Your task to perform on an android device: Open Chrome and go to settings Image 0: 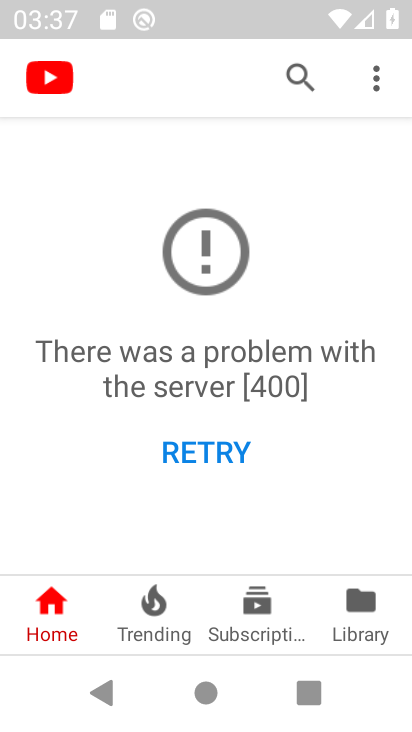
Step 0: press home button
Your task to perform on an android device: Open Chrome and go to settings Image 1: 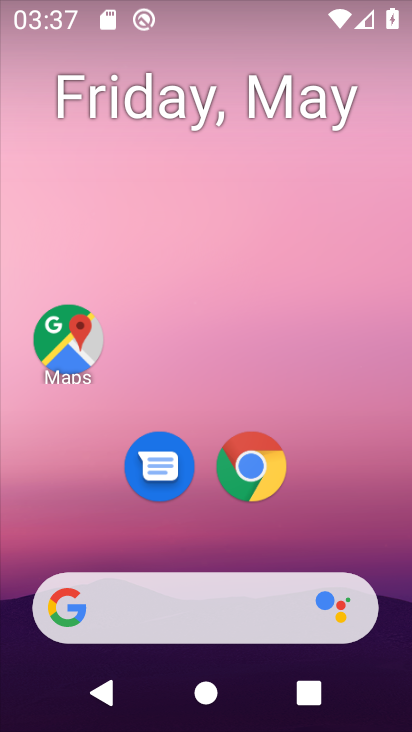
Step 1: click (255, 467)
Your task to perform on an android device: Open Chrome and go to settings Image 2: 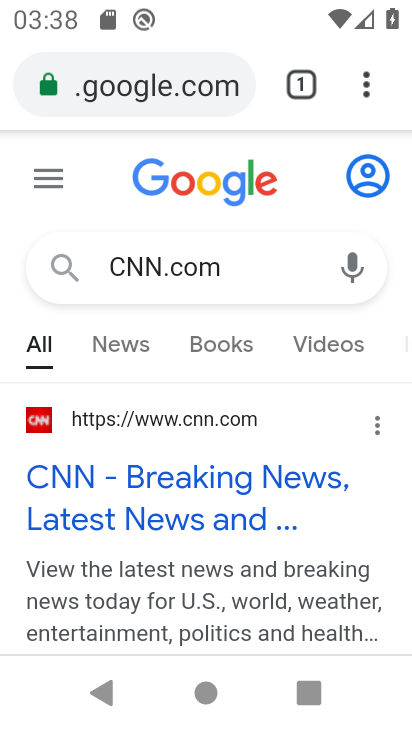
Step 2: click (358, 78)
Your task to perform on an android device: Open Chrome and go to settings Image 3: 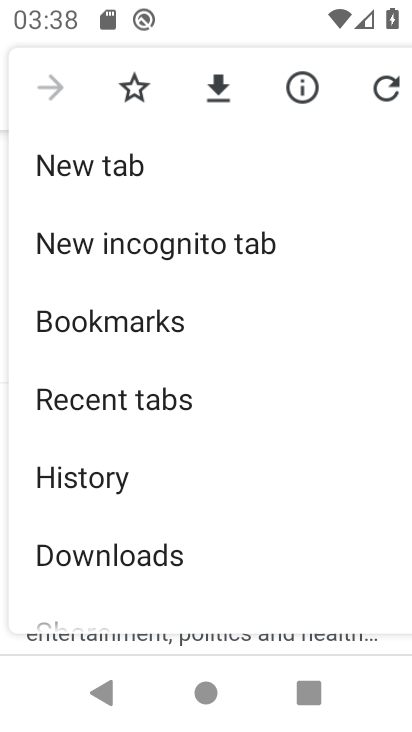
Step 3: drag from (323, 356) to (323, 263)
Your task to perform on an android device: Open Chrome and go to settings Image 4: 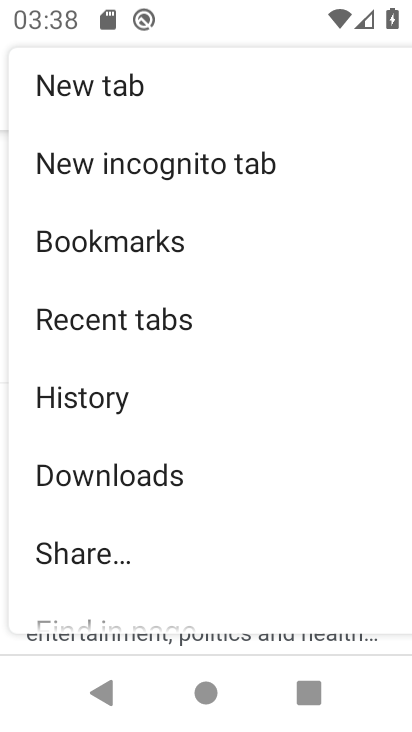
Step 4: drag from (297, 595) to (293, 286)
Your task to perform on an android device: Open Chrome and go to settings Image 5: 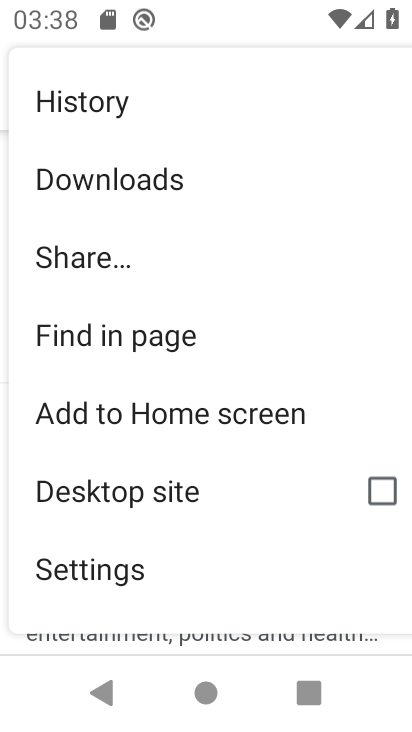
Step 5: drag from (293, 597) to (299, 268)
Your task to perform on an android device: Open Chrome and go to settings Image 6: 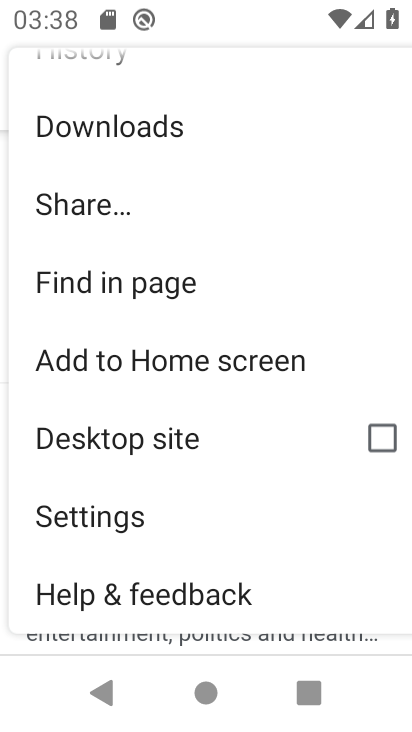
Step 6: click (66, 512)
Your task to perform on an android device: Open Chrome and go to settings Image 7: 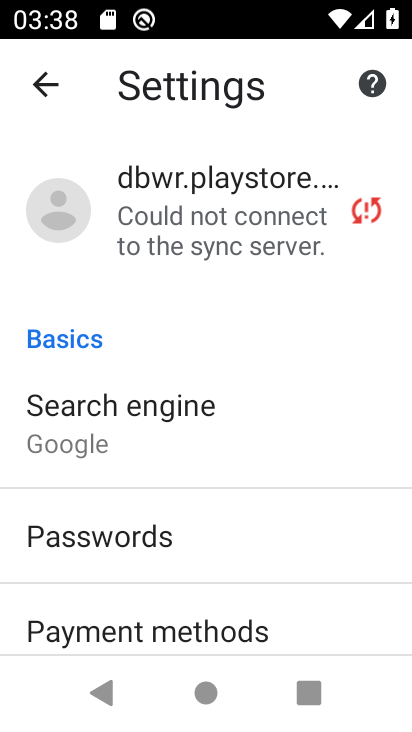
Step 7: task complete